Your task to perform on an android device: Go to Google maps Image 0: 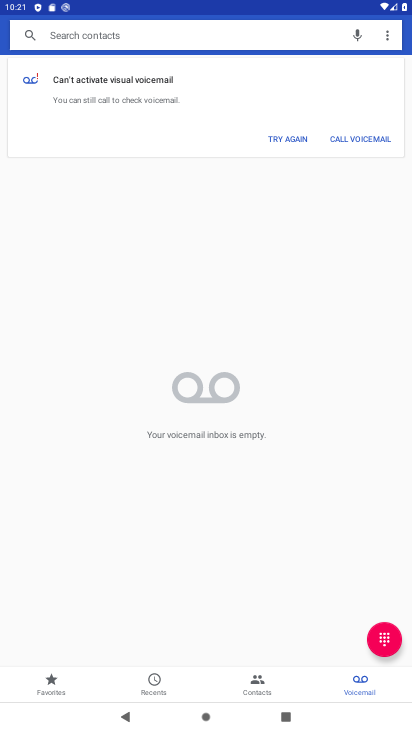
Step 0: press home button
Your task to perform on an android device: Go to Google maps Image 1: 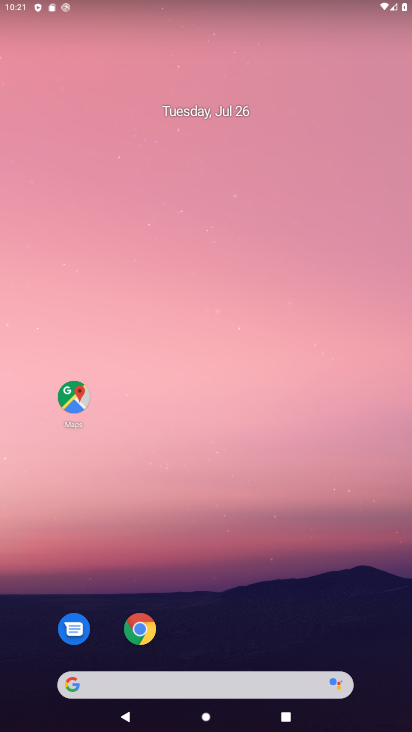
Step 1: click (87, 400)
Your task to perform on an android device: Go to Google maps Image 2: 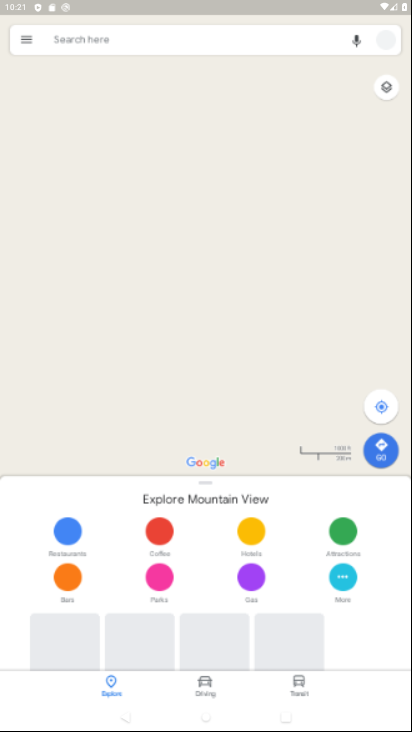
Step 2: task complete